Your task to perform on an android device: create a new album in the google photos Image 0: 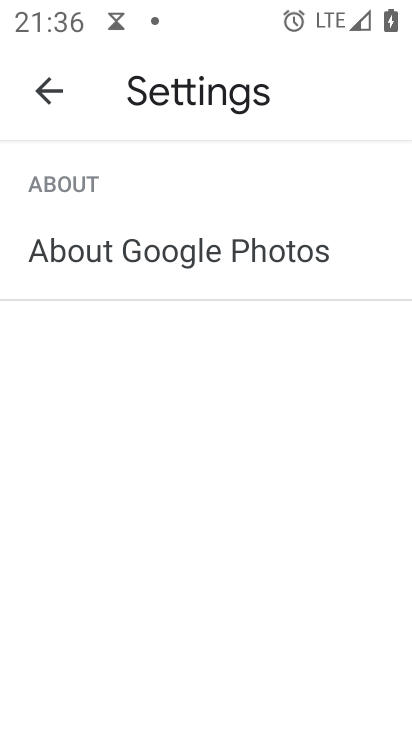
Step 0: press home button
Your task to perform on an android device: create a new album in the google photos Image 1: 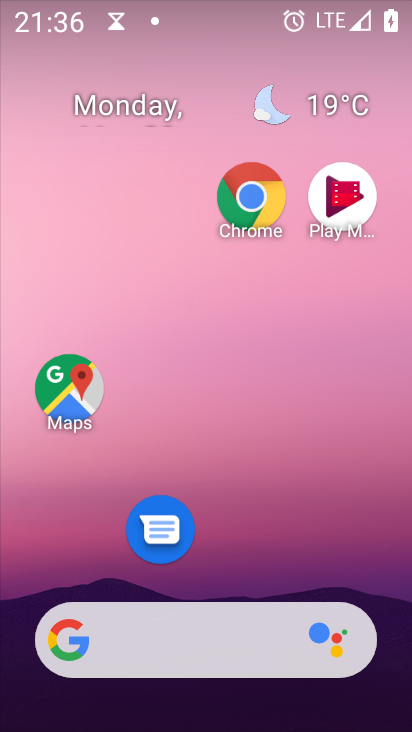
Step 1: drag from (202, 538) to (136, 3)
Your task to perform on an android device: create a new album in the google photos Image 2: 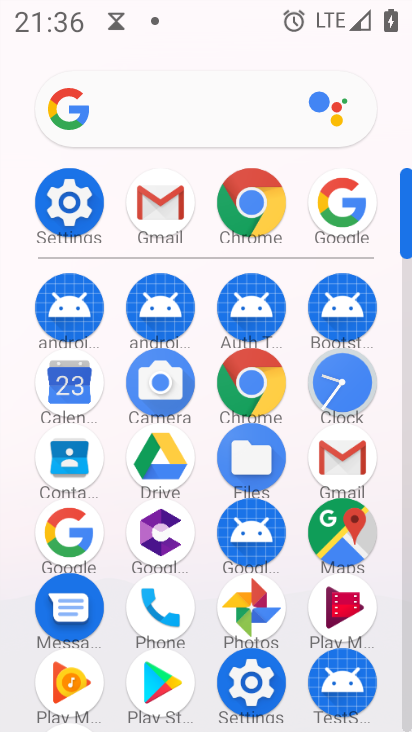
Step 2: drag from (181, 667) to (173, 264)
Your task to perform on an android device: create a new album in the google photos Image 3: 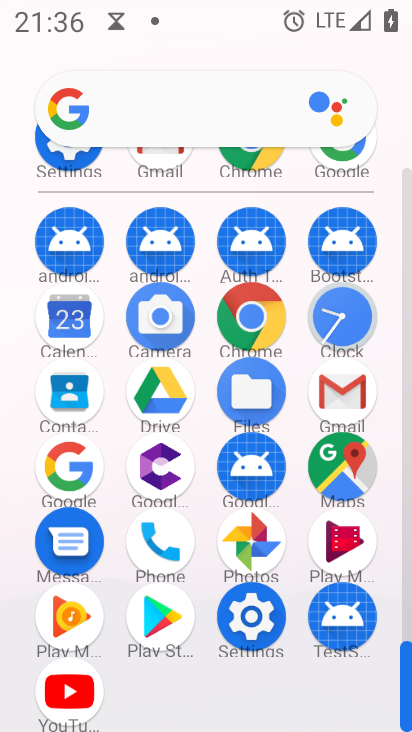
Step 3: click (241, 537)
Your task to perform on an android device: create a new album in the google photos Image 4: 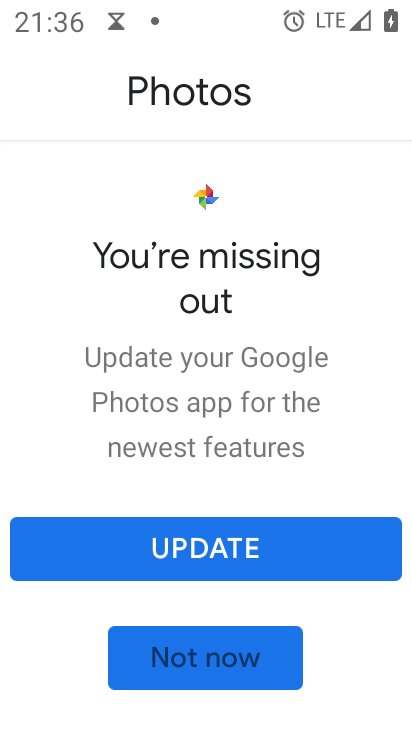
Step 4: click (248, 555)
Your task to perform on an android device: create a new album in the google photos Image 5: 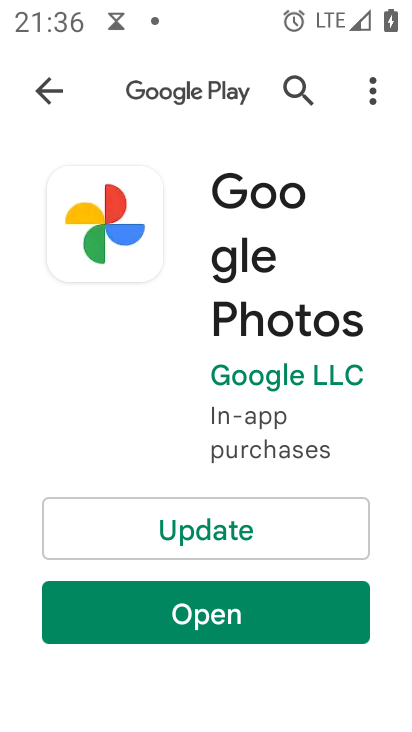
Step 5: click (198, 534)
Your task to perform on an android device: create a new album in the google photos Image 6: 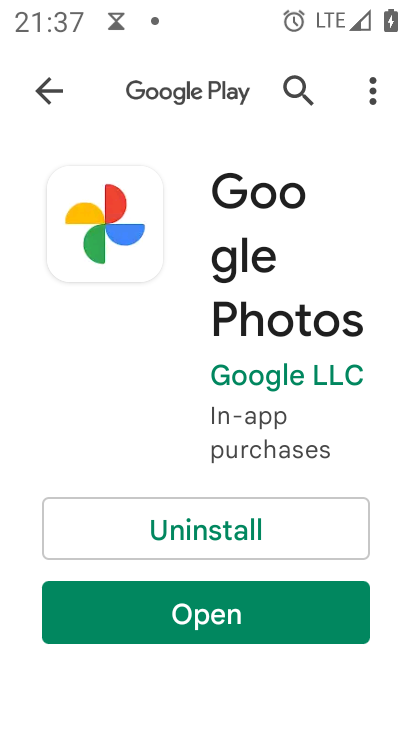
Step 6: click (219, 631)
Your task to perform on an android device: create a new album in the google photos Image 7: 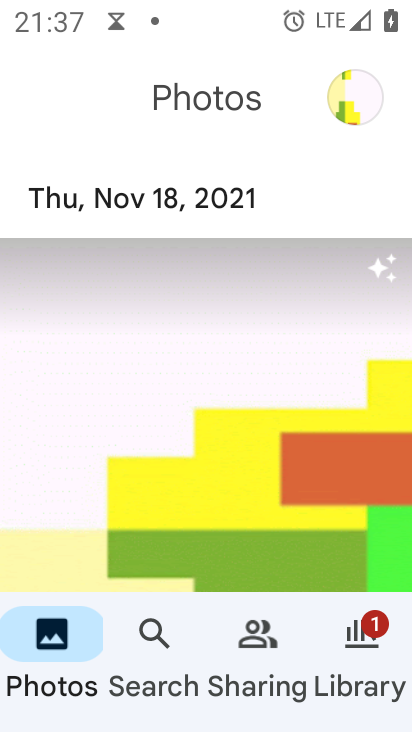
Step 7: click (354, 679)
Your task to perform on an android device: create a new album in the google photos Image 8: 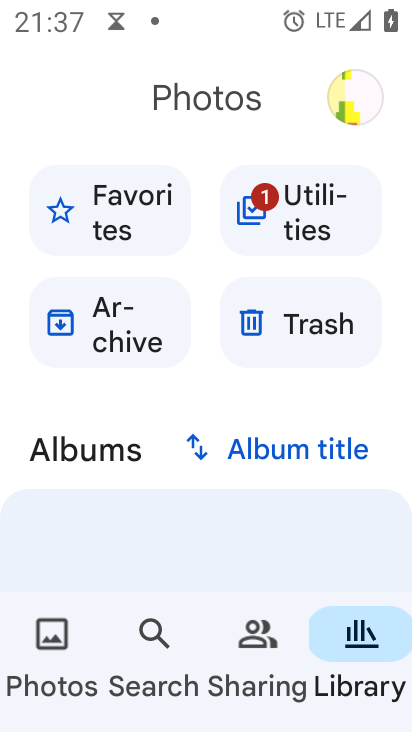
Step 8: drag from (289, 559) to (256, 359)
Your task to perform on an android device: create a new album in the google photos Image 9: 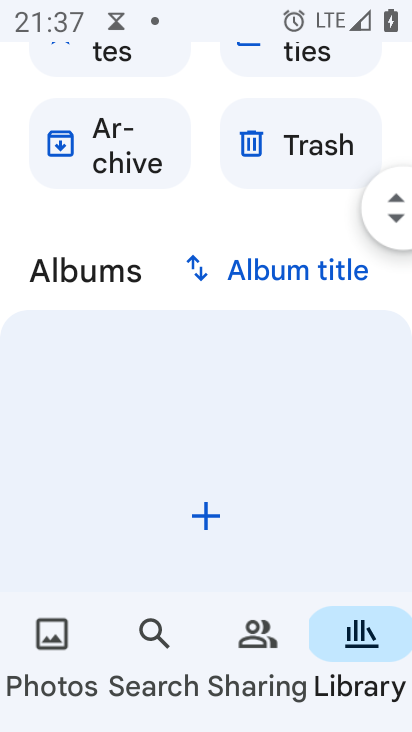
Step 9: click (200, 523)
Your task to perform on an android device: create a new album in the google photos Image 10: 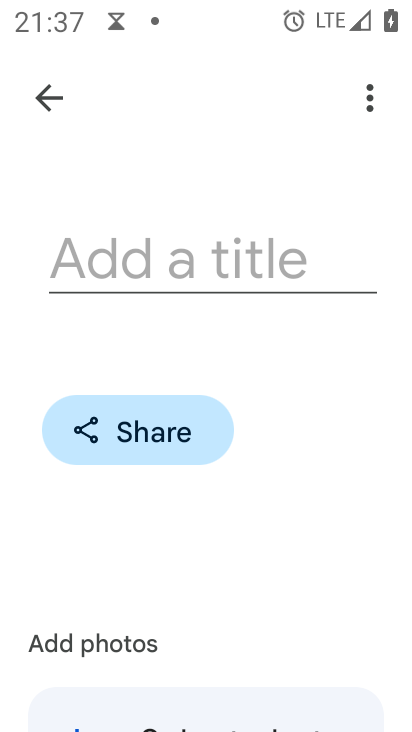
Step 10: click (183, 274)
Your task to perform on an android device: create a new album in the google photos Image 11: 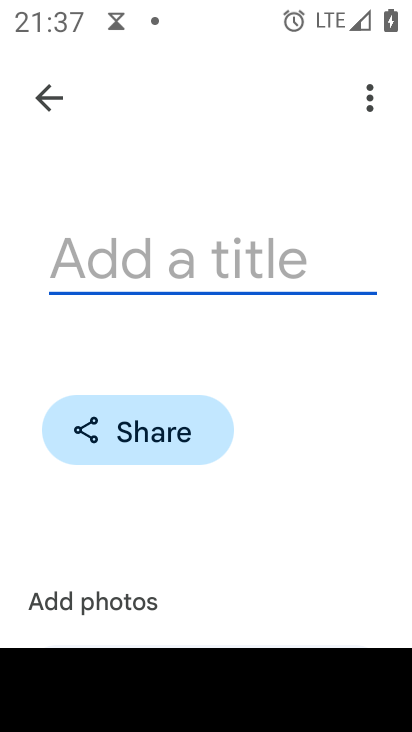
Step 11: type "bhandari"
Your task to perform on an android device: create a new album in the google photos Image 12: 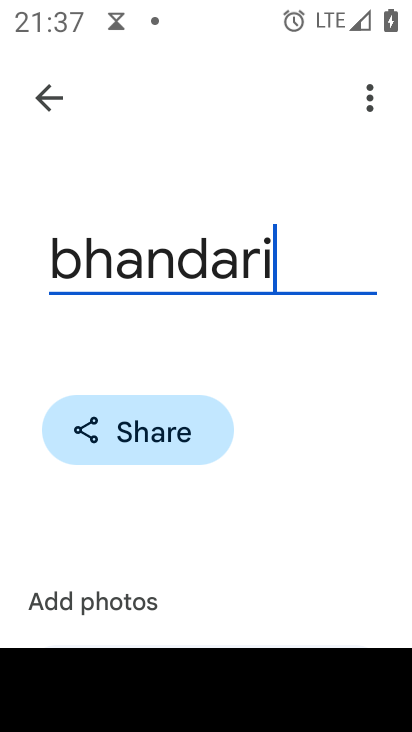
Step 12: click (107, 596)
Your task to perform on an android device: create a new album in the google photos Image 13: 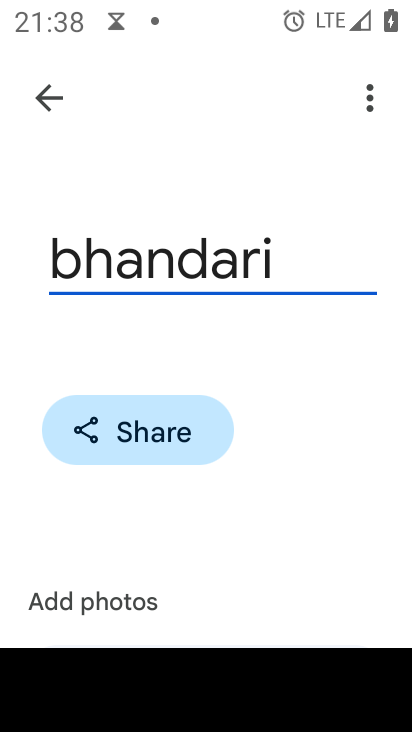
Step 13: drag from (132, 575) to (113, 437)
Your task to perform on an android device: create a new album in the google photos Image 14: 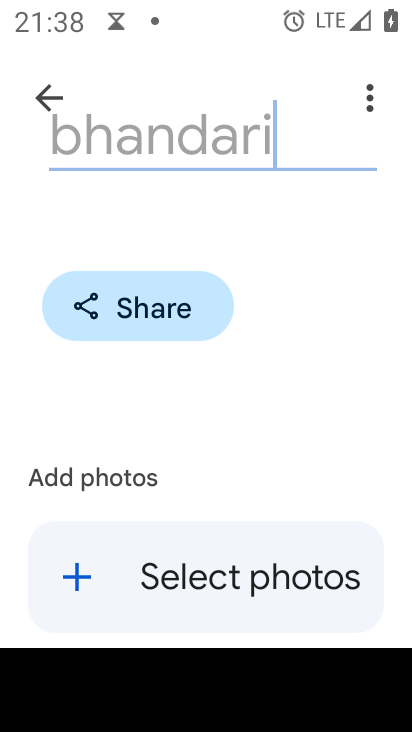
Step 14: click (215, 590)
Your task to perform on an android device: create a new album in the google photos Image 15: 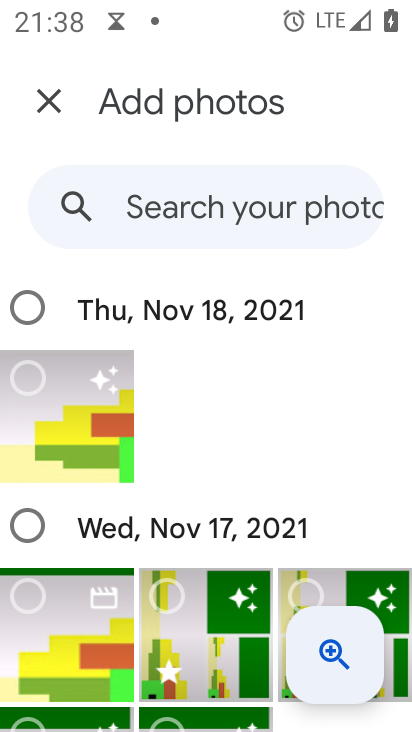
Step 15: click (51, 309)
Your task to perform on an android device: create a new album in the google photos Image 16: 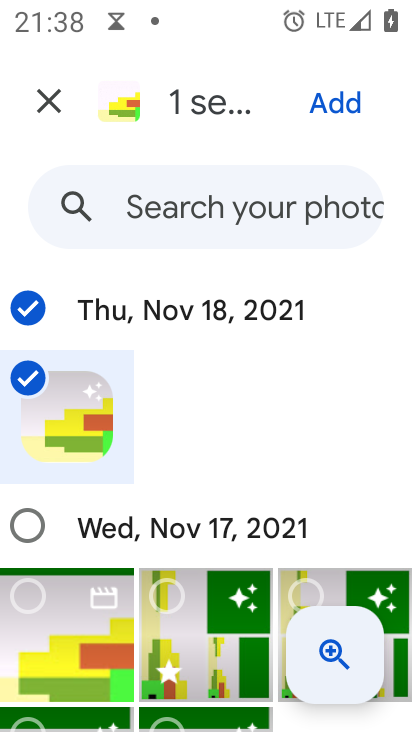
Step 16: click (334, 106)
Your task to perform on an android device: create a new album in the google photos Image 17: 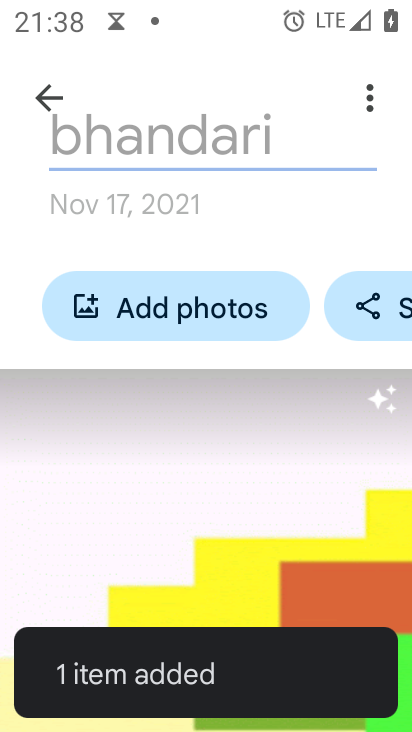
Step 17: task complete